Your task to perform on an android device: turn on javascript in the chrome app Image 0: 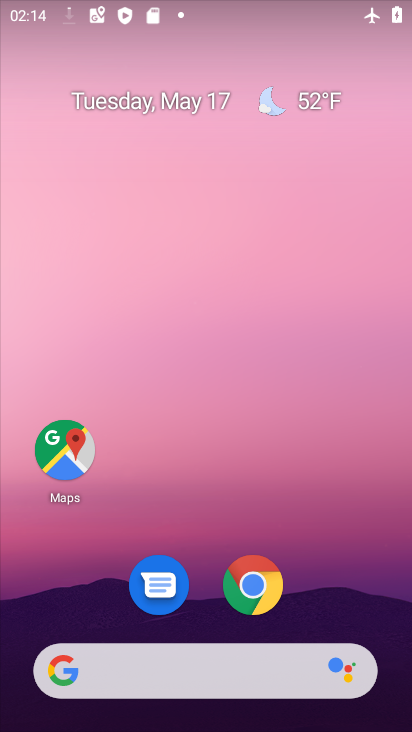
Step 0: click (262, 576)
Your task to perform on an android device: turn on javascript in the chrome app Image 1: 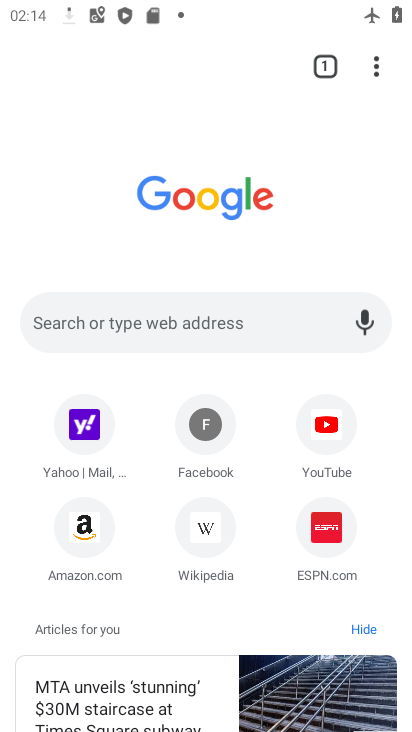
Step 1: click (378, 65)
Your task to perform on an android device: turn on javascript in the chrome app Image 2: 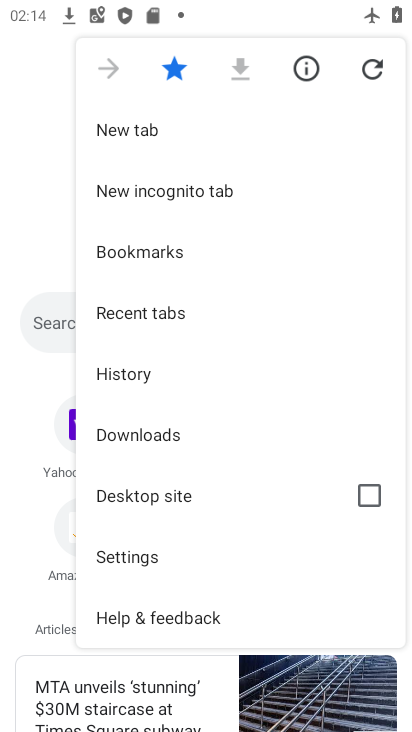
Step 2: click (180, 552)
Your task to perform on an android device: turn on javascript in the chrome app Image 3: 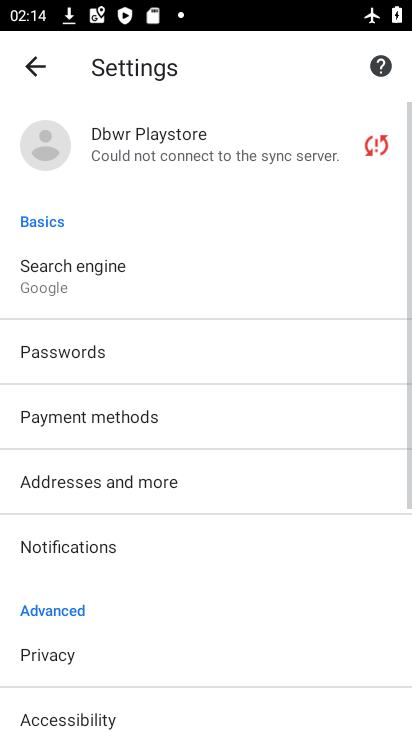
Step 3: drag from (178, 557) to (234, 237)
Your task to perform on an android device: turn on javascript in the chrome app Image 4: 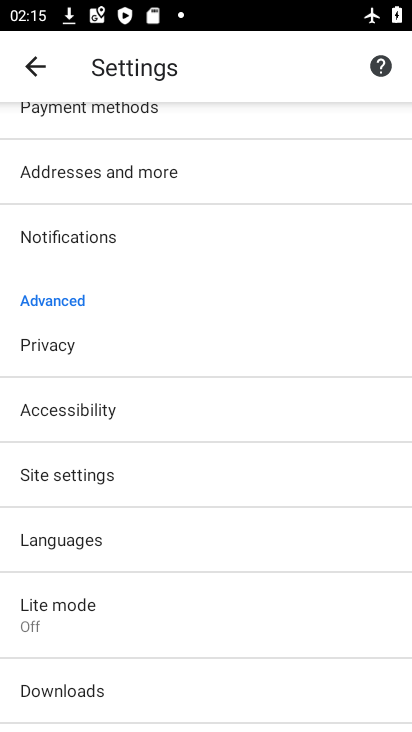
Step 4: click (161, 472)
Your task to perform on an android device: turn on javascript in the chrome app Image 5: 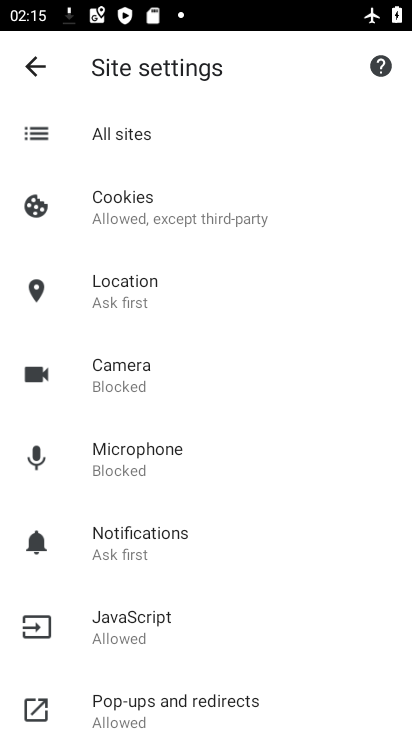
Step 5: click (203, 614)
Your task to perform on an android device: turn on javascript in the chrome app Image 6: 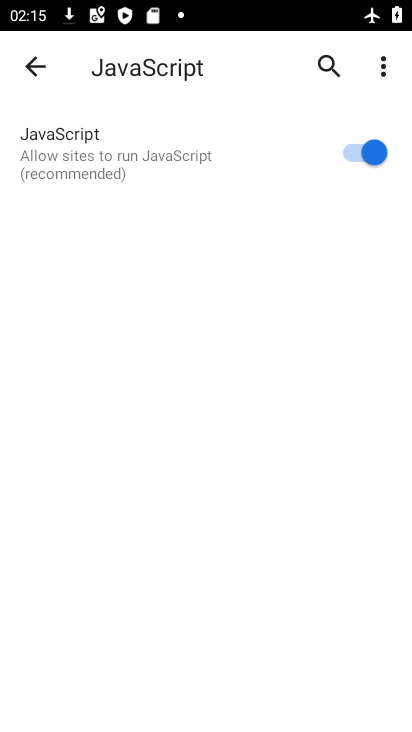
Step 6: task complete